Your task to perform on an android device: see sites visited before in the chrome app Image 0: 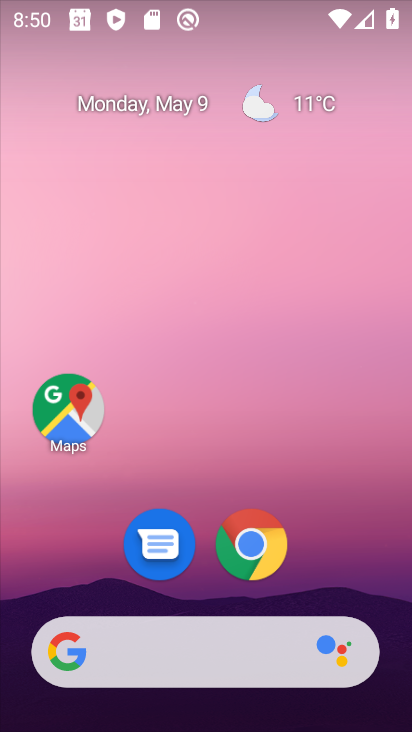
Step 0: click (260, 535)
Your task to perform on an android device: see sites visited before in the chrome app Image 1: 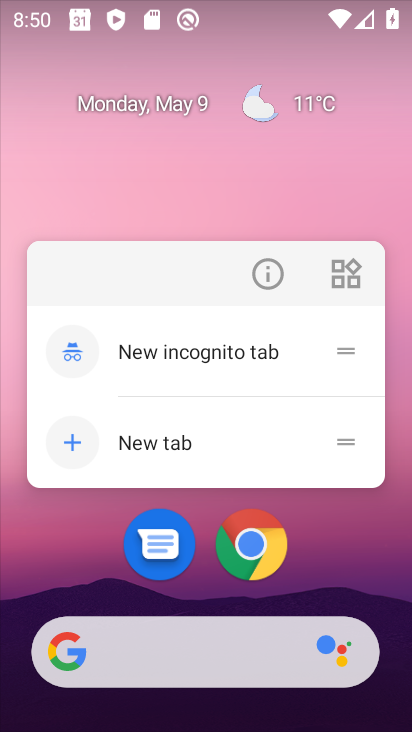
Step 1: click (233, 538)
Your task to perform on an android device: see sites visited before in the chrome app Image 2: 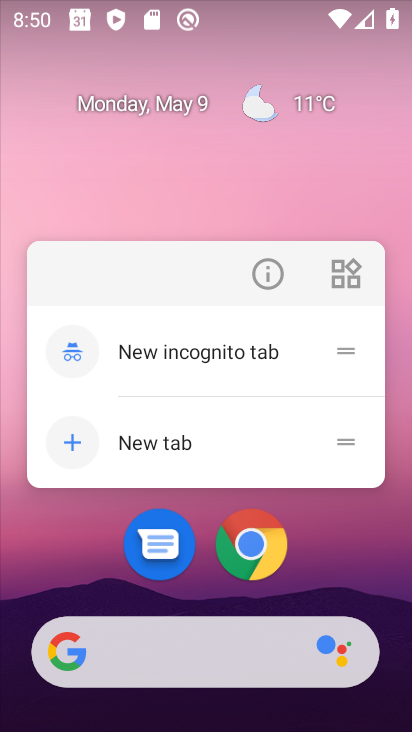
Step 2: click (233, 538)
Your task to perform on an android device: see sites visited before in the chrome app Image 3: 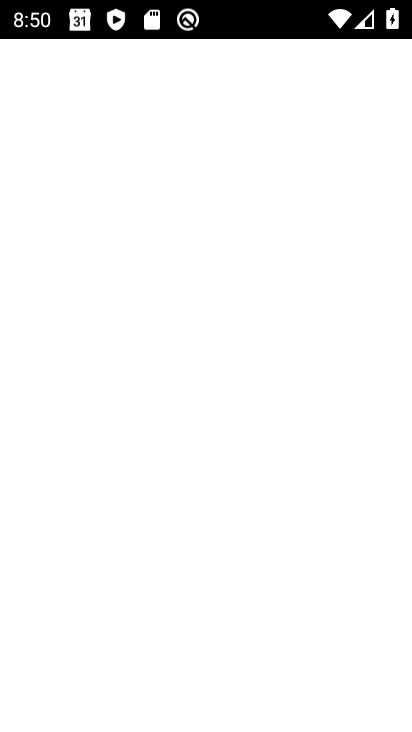
Step 3: click (257, 545)
Your task to perform on an android device: see sites visited before in the chrome app Image 4: 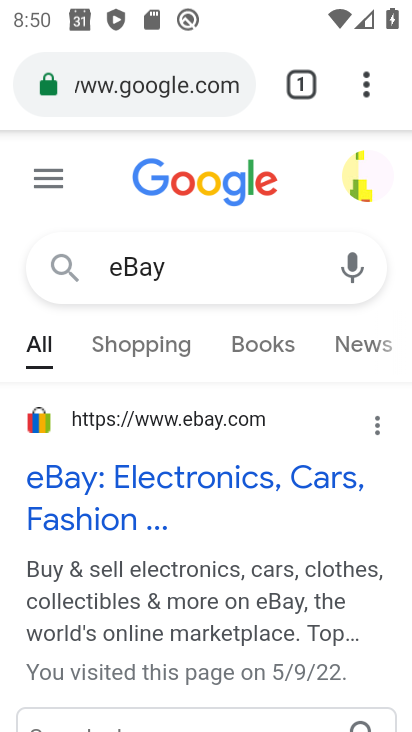
Step 4: click (365, 80)
Your task to perform on an android device: see sites visited before in the chrome app Image 5: 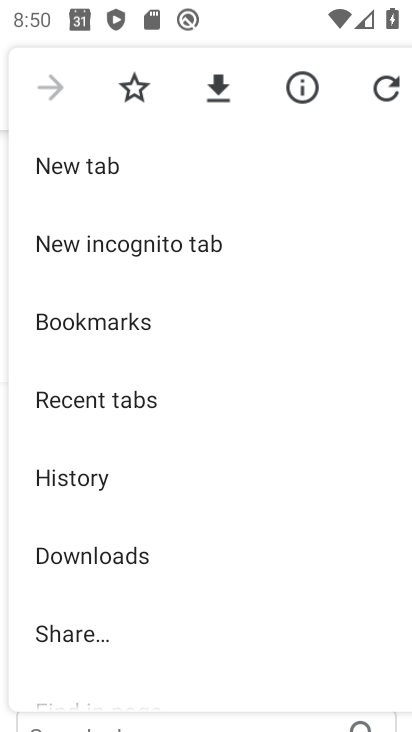
Step 5: click (75, 400)
Your task to perform on an android device: see sites visited before in the chrome app Image 6: 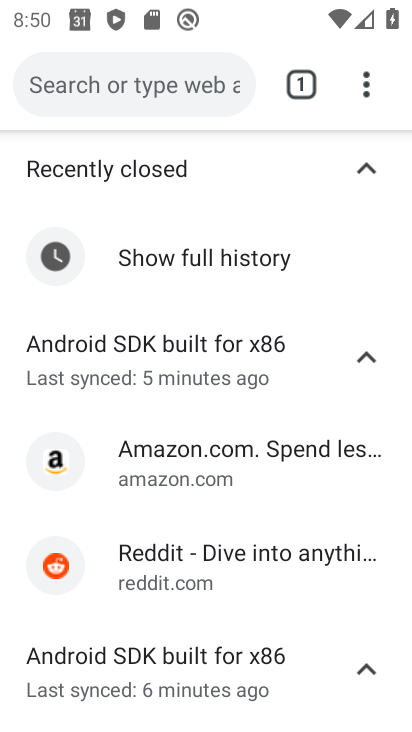
Step 6: task complete